Your task to perform on an android device: Go to Maps Image 0: 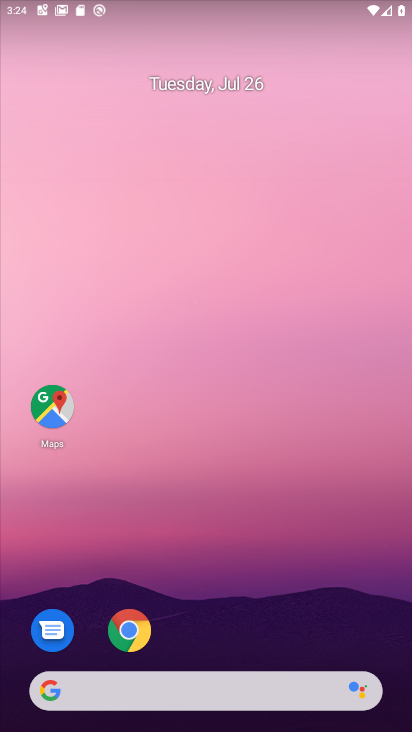
Step 0: click (46, 385)
Your task to perform on an android device: Go to Maps Image 1: 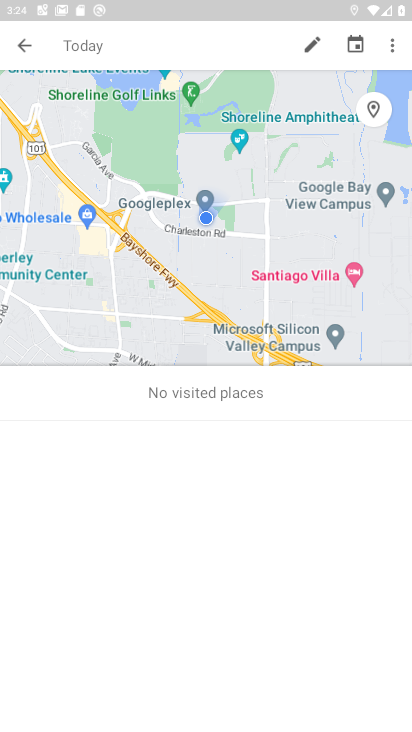
Step 1: task complete